Your task to perform on an android device: open the mobile data screen to see how much data has been used Image 0: 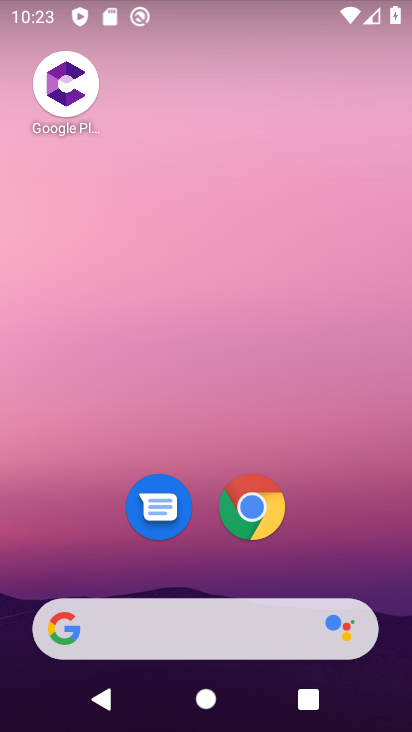
Step 0: drag from (256, 481) to (347, 16)
Your task to perform on an android device: open the mobile data screen to see how much data has been used Image 1: 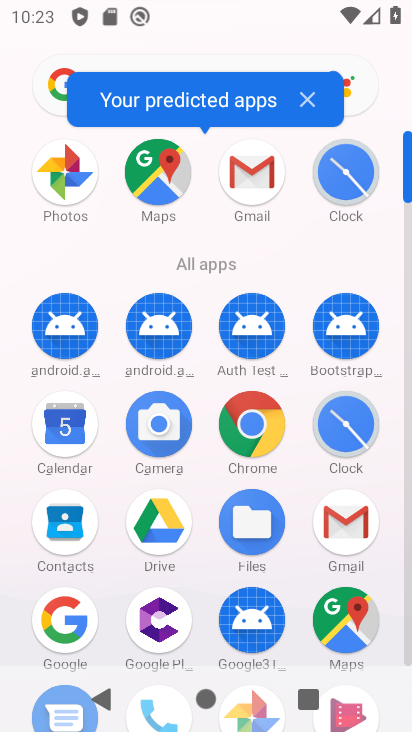
Step 1: drag from (196, 638) to (205, 222)
Your task to perform on an android device: open the mobile data screen to see how much data has been used Image 2: 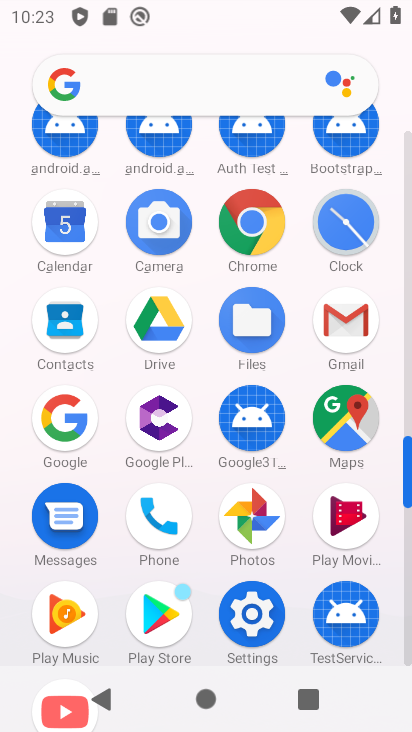
Step 2: click (247, 626)
Your task to perform on an android device: open the mobile data screen to see how much data has been used Image 3: 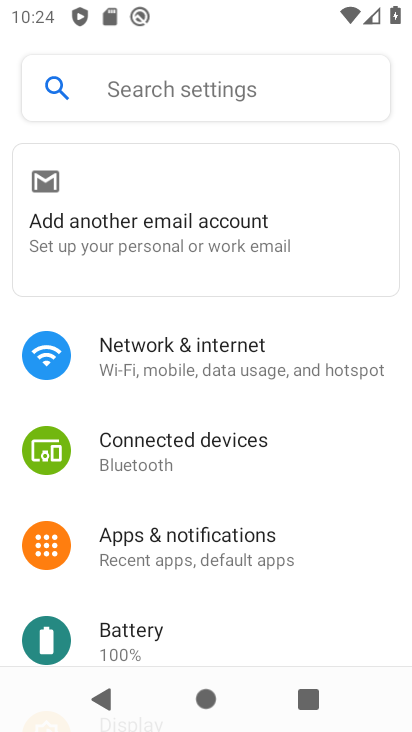
Step 3: click (216, 217)
Your task to perform on an android device: open the mobile data screen to see how much data has been used Image 4: 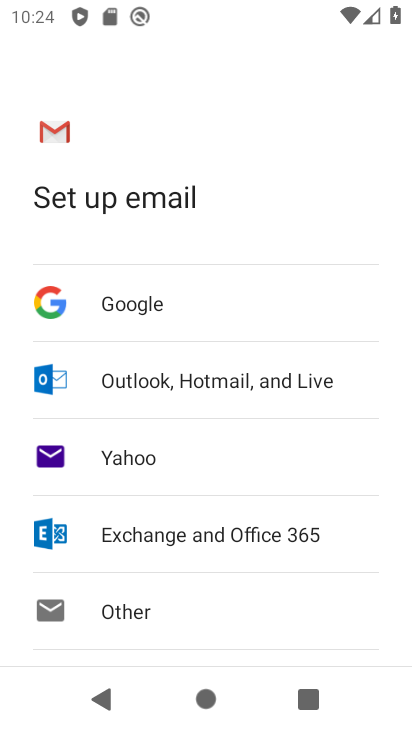
Step 4: press back button
Your task to perform on an android device: open the mobile data screen to see how much data has been used Image 5: 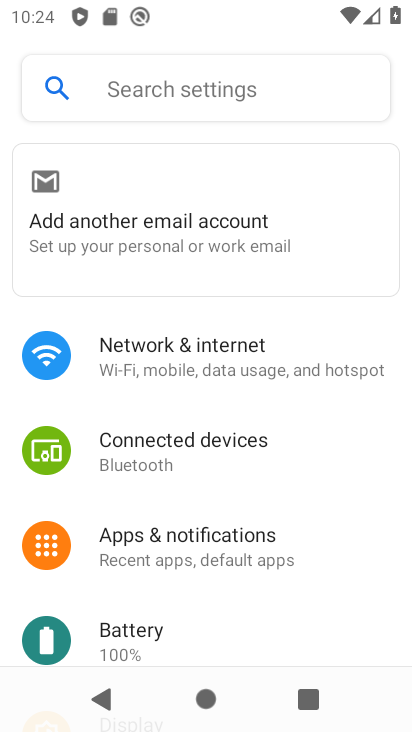
Step 5: click (190, 362)
Your task to perform on an android device: open the mobile data screen to see how much data has been used Image 6: 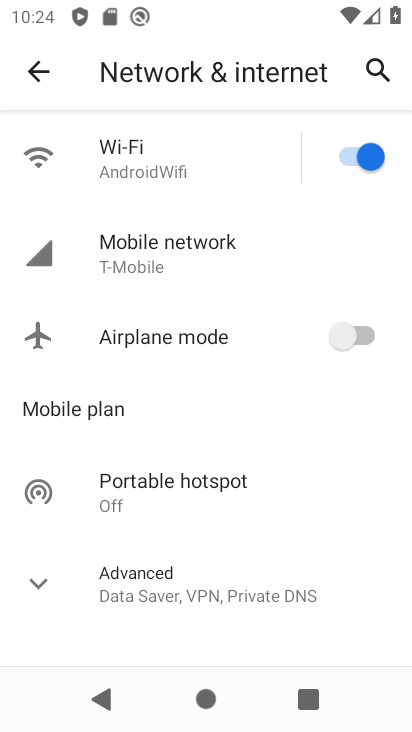
Step 6: click (194, 267)
Your task to perform on an android device: open the mobile data screen to see how much data has been used Image 7: 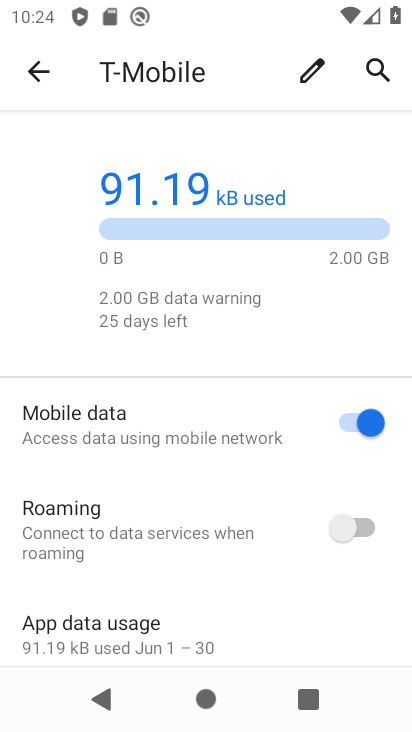
Step 7: task complete